Your task to perform on an android device: Go to sound settings Image 0: 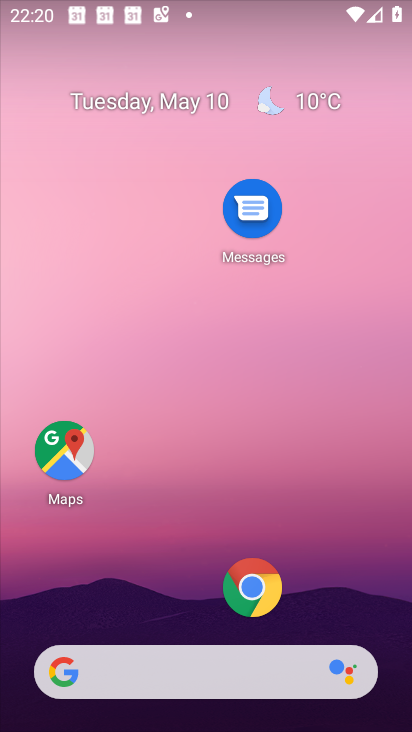
Step 0: drag from (169, 614) to (192, 134)
Your task to perform on an android device: Go to sound settings Image 1: 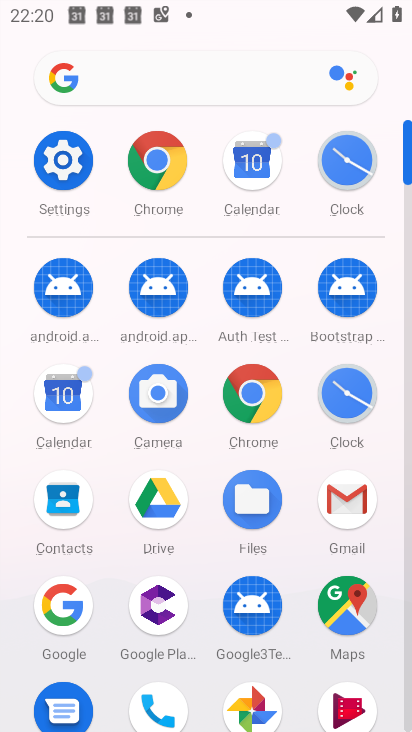
Step 1: click (74, 181)
Your task to perform on an android device: Go to sound settings Image 2: 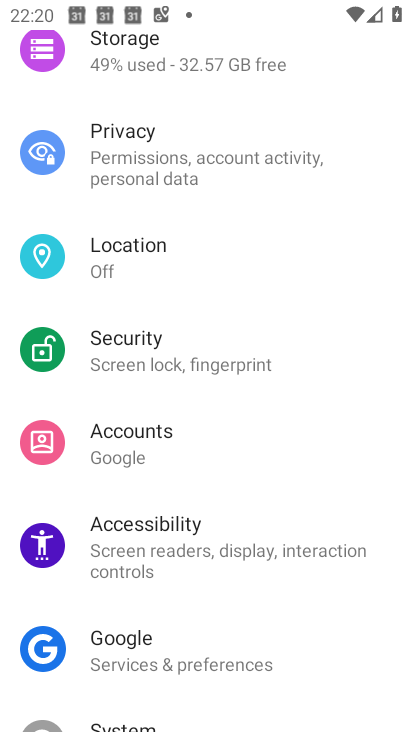
Step 2: drag from (189, 218) to (184, 570)
Your task to perform on an android device: Go to sound settings Image 3: 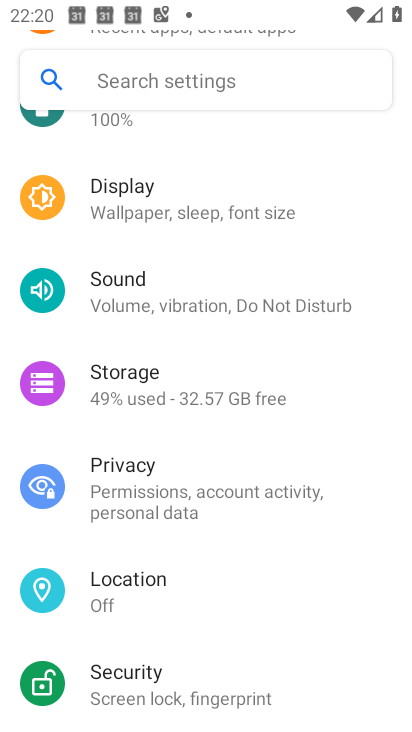
Step 3: drag from (200, 243) to (195, 312)
Your task to perform on an android device: Go to sound settings Image 4: 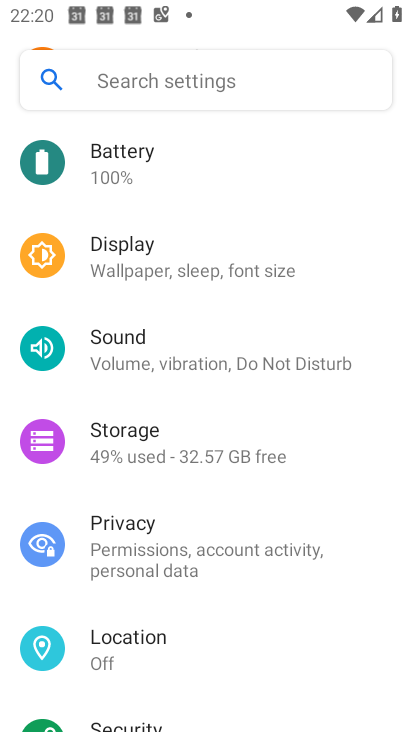
Step 4: click (142, 370)
Your task to perform on an android device: Go to sound settings Image 5: 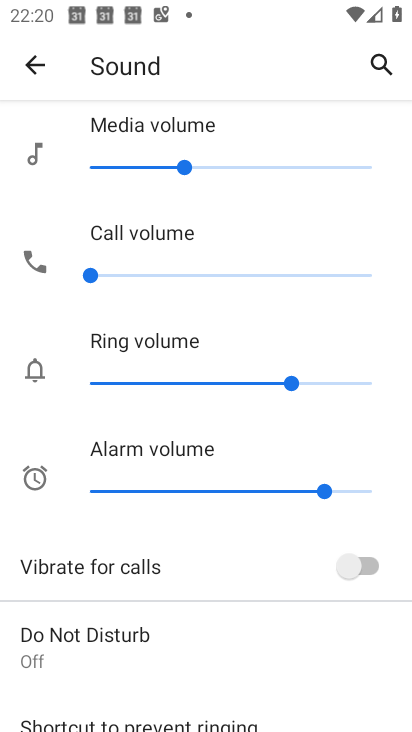
Step 5: task complete